Your task to perform on an android device: open a bookmark in the chrome app Image 0: 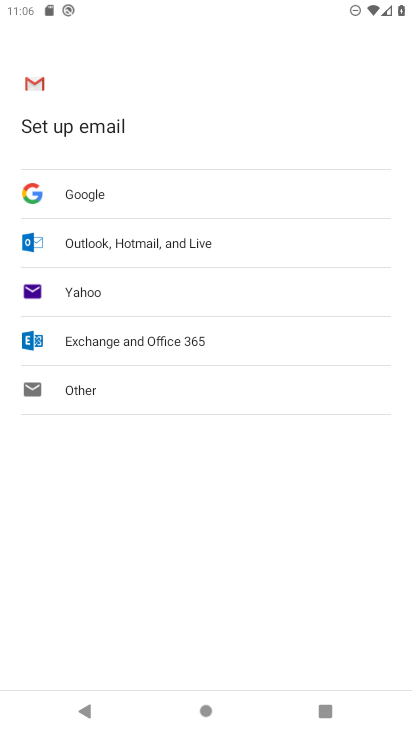
Step 0: press home button
Your task to perform on an android device: open a bookmark in the chrome app Image 1: 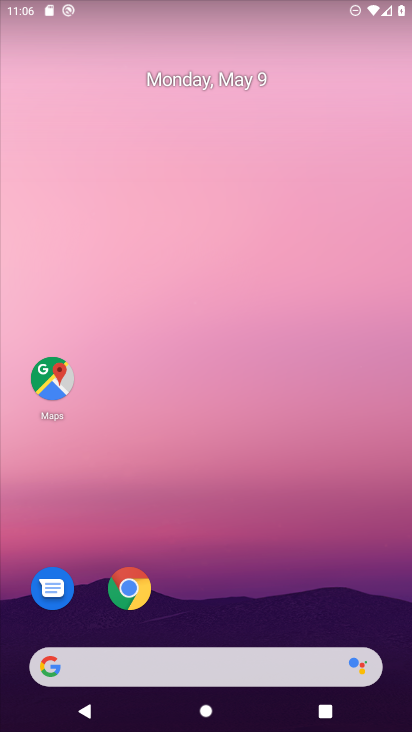
Step 1: click (140, 587)
Your task to perform on an android device: open a bookmark in the chrome app Image 2: 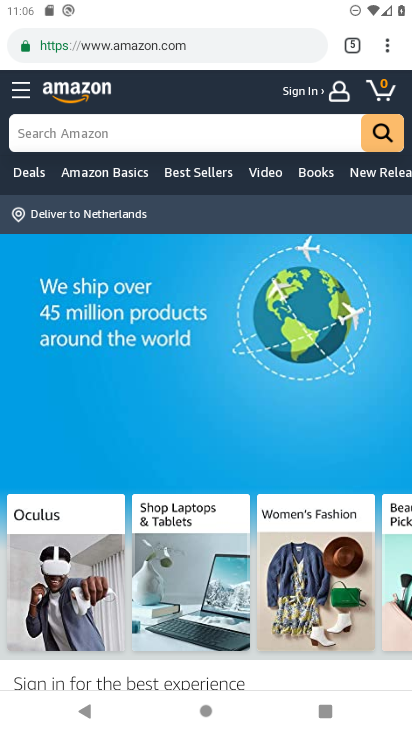
Step 2: click (389, 40)
Your task to perform on an android device: open a bookmark in the chrome app Image 3: 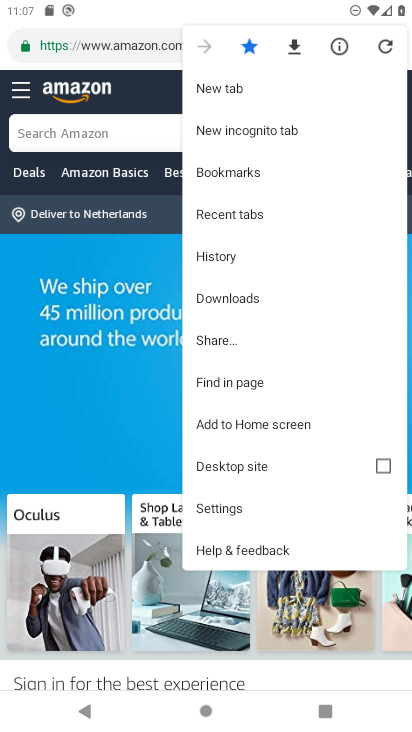
Step 3: click (257, 181)
Your task to perform on an android device: open a bookmark in the chrome app Image 4: 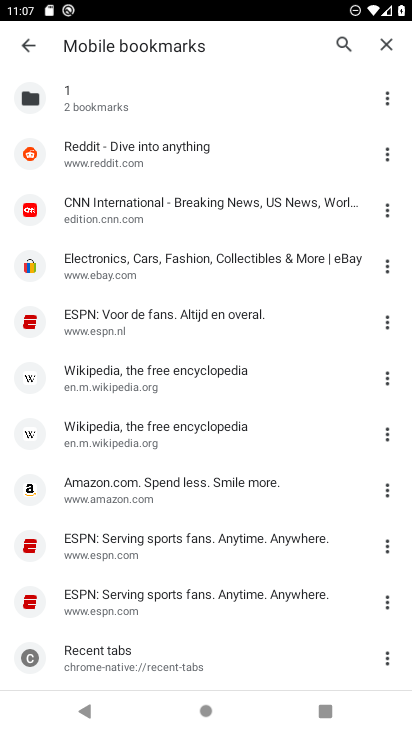
Step 4: click (212, 260)
Your task to perform on an android device: open a bookmark in the chrome app Image 5: 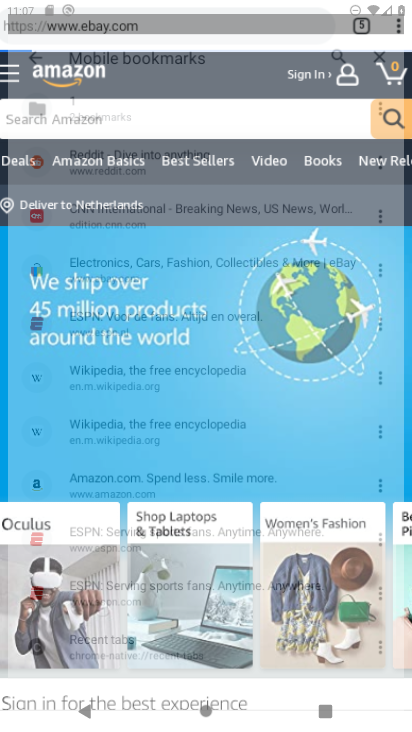
Step 5: task complete